Your task to perform on an android device: turn notification dots off Image 0: 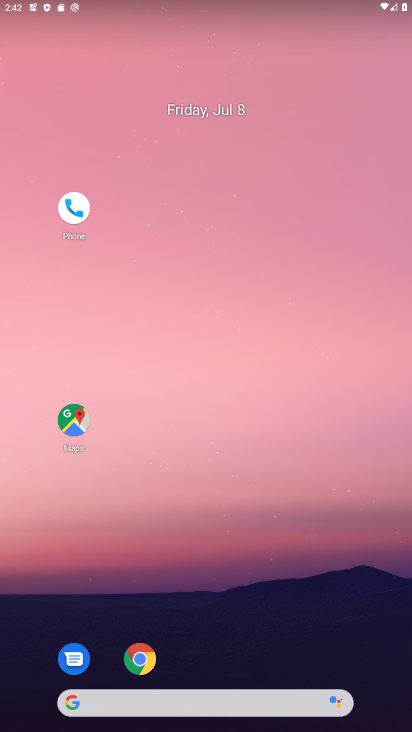
Step 0: drag from (388, 521) to (173, 27)
Your task to perform on an android device: turn notification dots off Image 1: 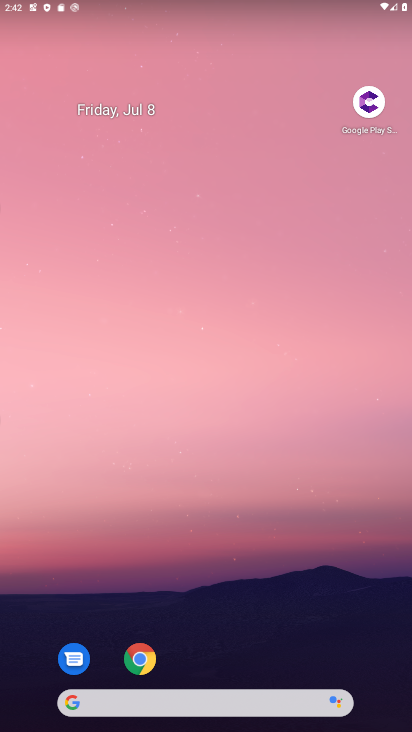
Step 1: drag from (230, 516) to (82, 4)
Your task to perform on an android device: turn notification dots off Image 2: 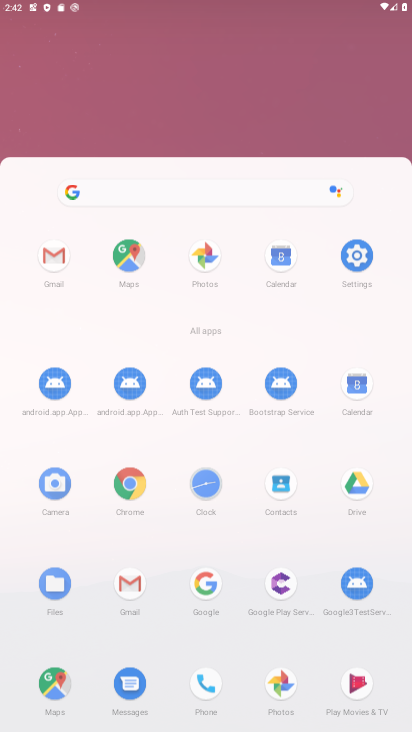
Step 2: drag from (202, 488) to (83, 9)
Your task to perform on an android device: turn notification dots off Image 3: 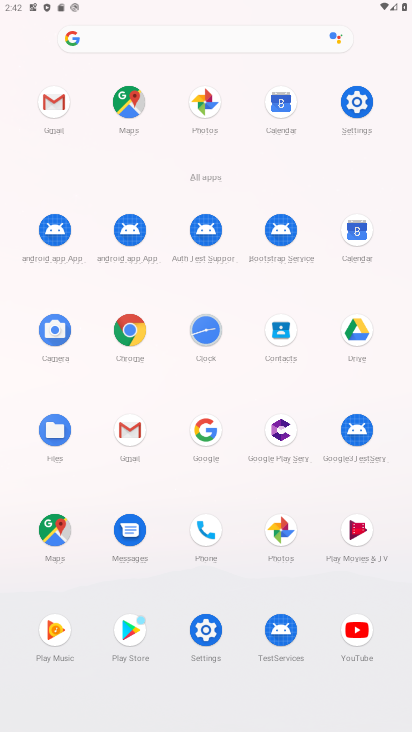
Step 3: drag from (213, 224) to (201, 98)
Your task to perform on an android device: turn notification dots off Image 4: 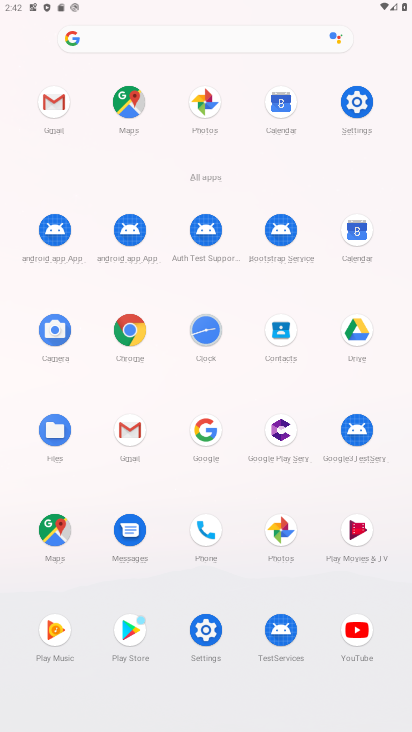
Step 4: click (204, 635)
Your task to perform on an android device: turn notification dots off Image 5: 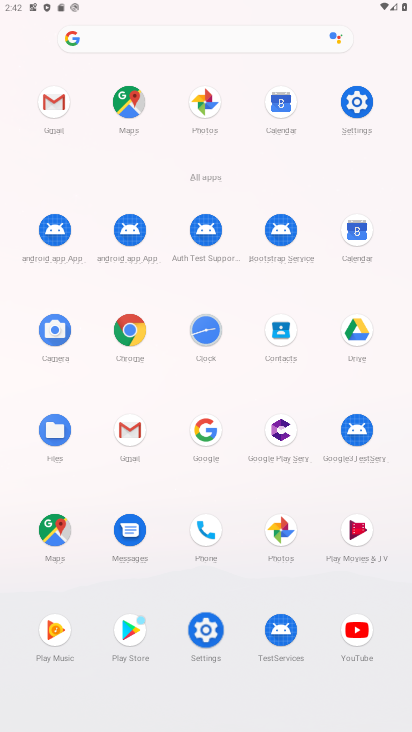
Step 5: click (204, 635)
Your task to perform on an android device: turn notification dots off Image 6: 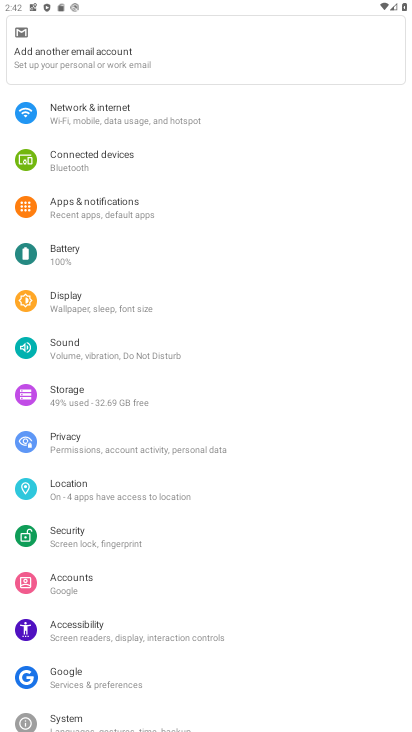
Step 6: click (95, 201)
Your task to perform on an android device: turn notification dots off Image 7: 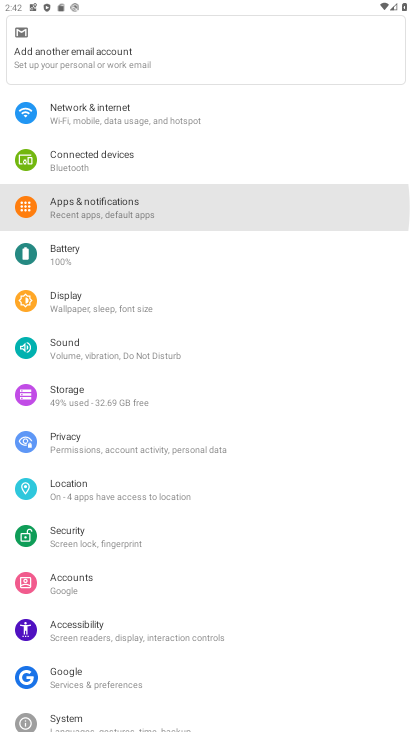
Step 7: click (98, 201)
Your task to perform on an android device: turn notification dots off Image 8: 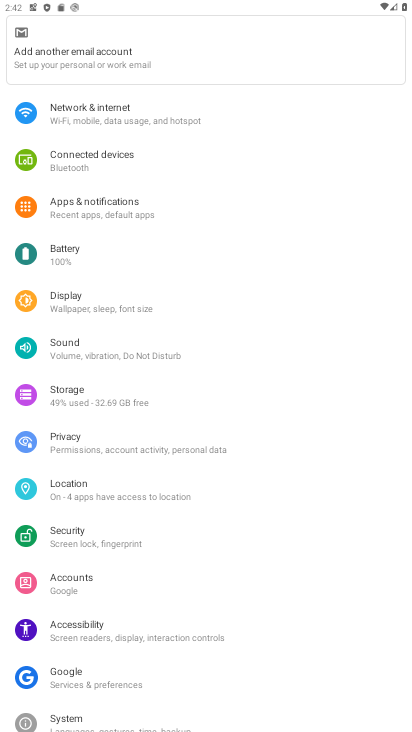
Step 8: click (98, 201)
Your task to perform on an android device: turn notification dots off Image 9: 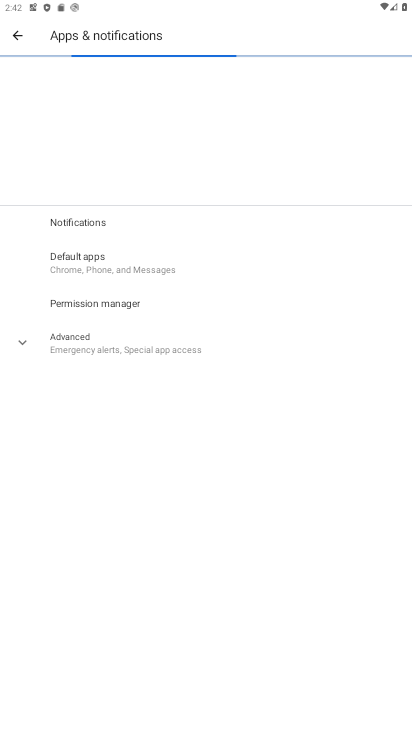
Step 9: click (103, 200)
Your task to perform on an android device: turn notification dots off Image 10: 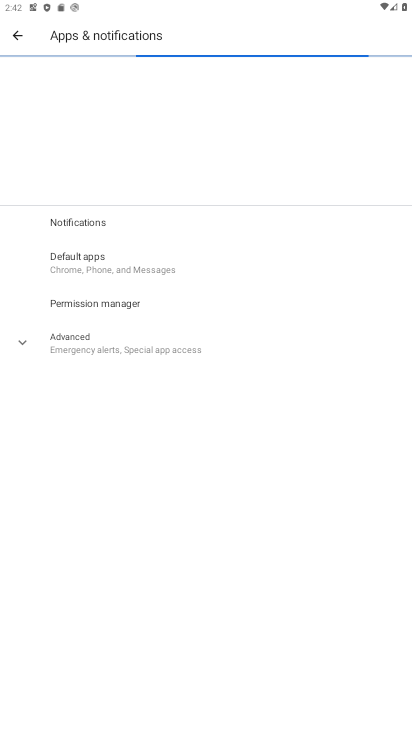
Step 10: click (103, 200)
Your task to perform on an android device: turn notification dots off Image 11: 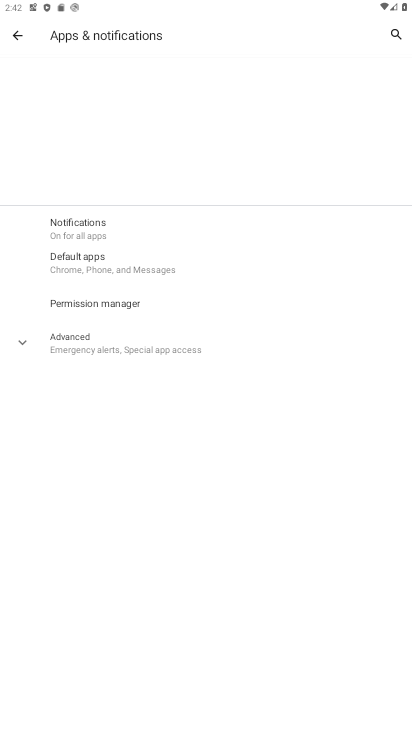
Step 11: click (103, 200)
Your task to perform on an android device: turn notification dots off Image 12: 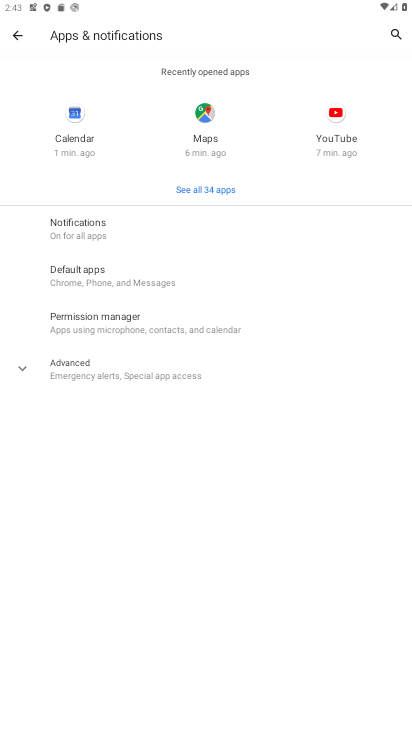
Step 12: click (84, 225)
Your task to perform on an android device: turn notification dots off Image 13: 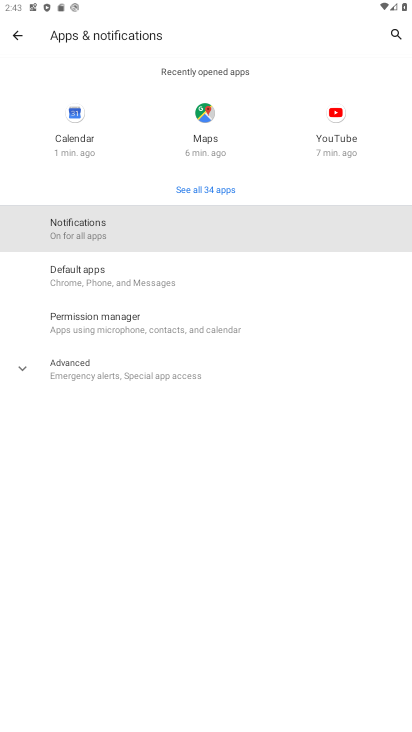
Step 13: click (81, 225)
Your task to perform on an android device: turn notification dots off Image 14: 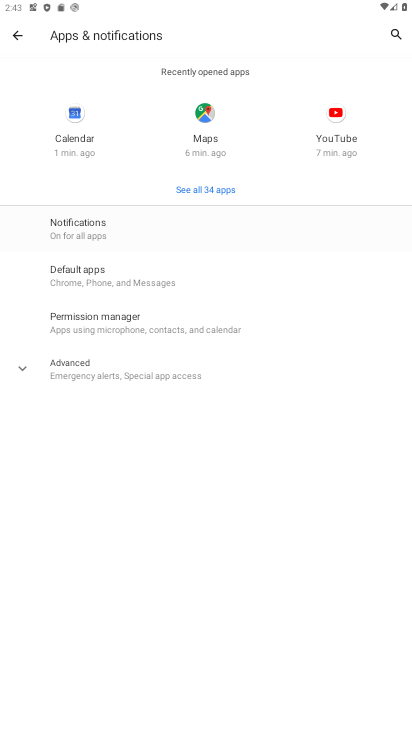
Step 14: click (80, 225)
Your task to perform on an android device: turn notification dots off Image 15: 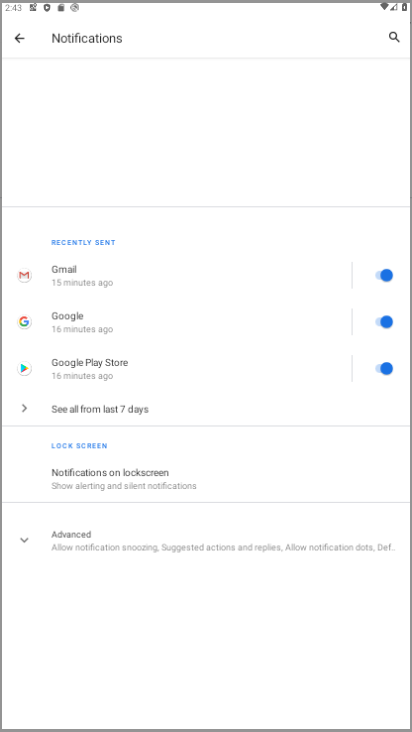
Step 15: click (77, 230)
Your task to perform on an android device: turn notification dots off Image 16: 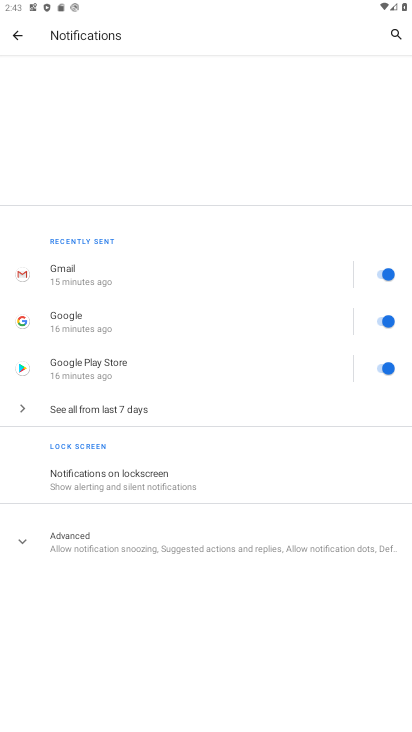
Step 16: click (77, 230)
Your task to perform on an android device: turn notification dots off Image 17: 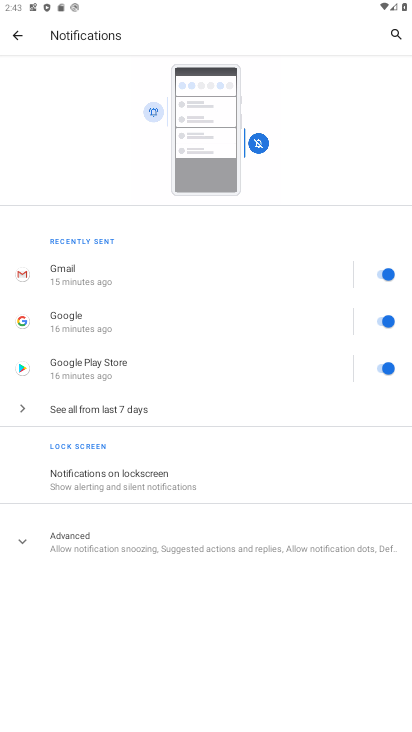
Step 17: click (83, 540)
Your task to perform on an android device: turn notification dots off Image 18: 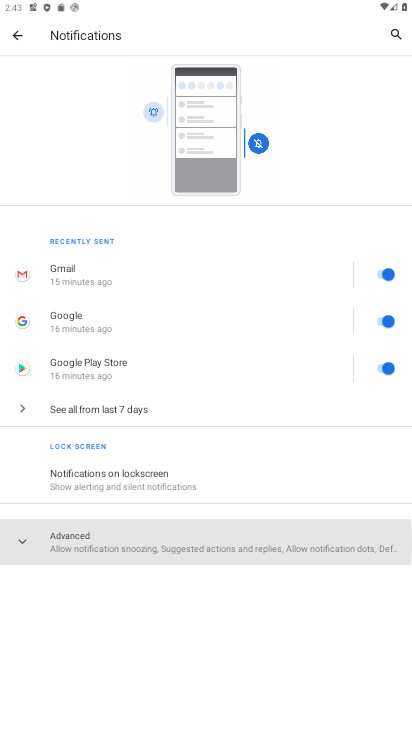
Step 18: click (83, 544)
Your task to perform on an android device: turn notification dots off Image 19: 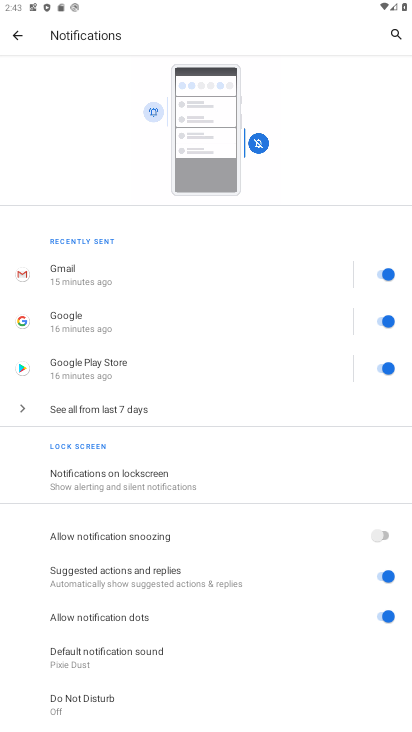
Step 19: click (85, 544)
Your task to perform on an android device: turn notification dots off Image 20: 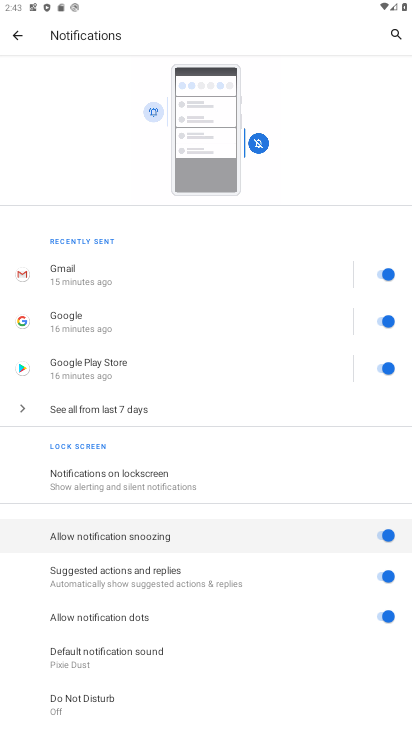
Step 20: click (85, 543)
Your task to perform on an android device: turn notification dots off Image 21: 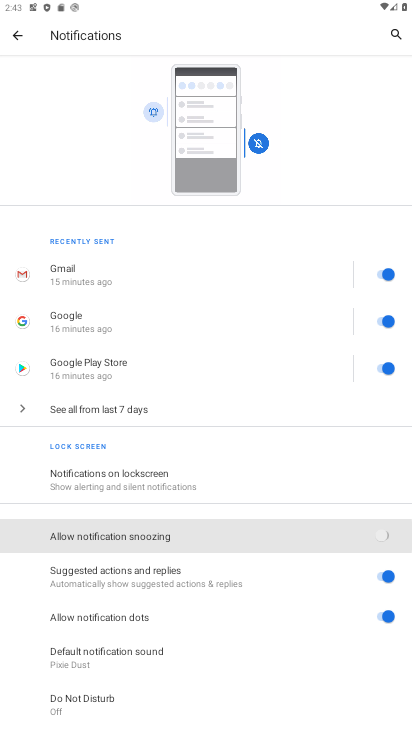
Step 21: click (86, 542)
Your task to perform on an android device: turn notification dots off Image 22: 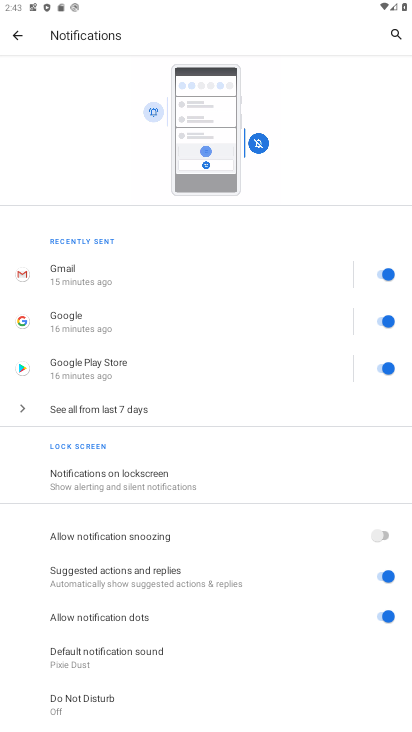
Step 22: click (121, 612)
Your task to perform on an android device: turn notification dots off Image 23: 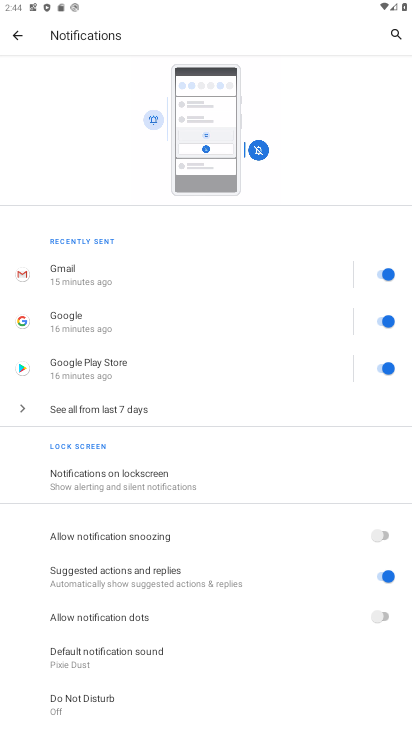
Step 23: click (136, 617)
Your task to perform on an android device: turn notification dots off Image 24: 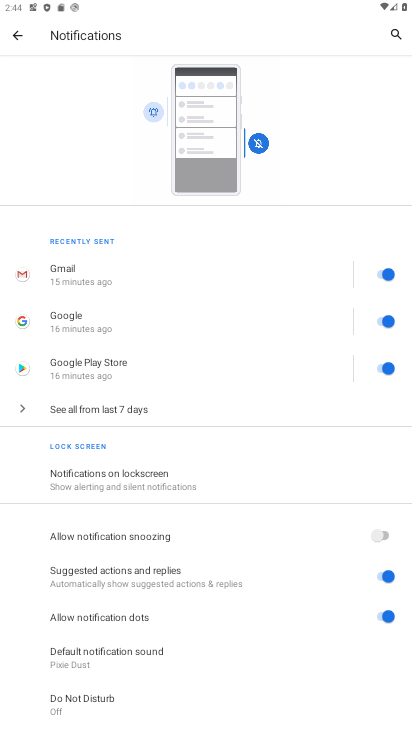
Step 24: click (384, 615)
Your task to perform on an android device: turn notification dots off Image 25: 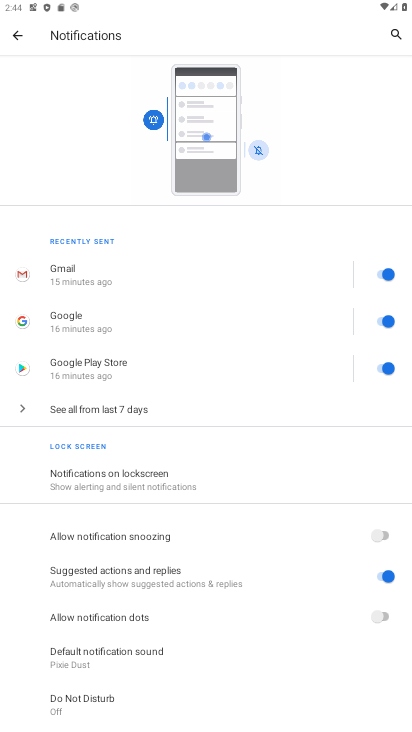
Step 25: task complete